Your task to perform on an android device: remove spam from my inbox in the gmail app Image 0: 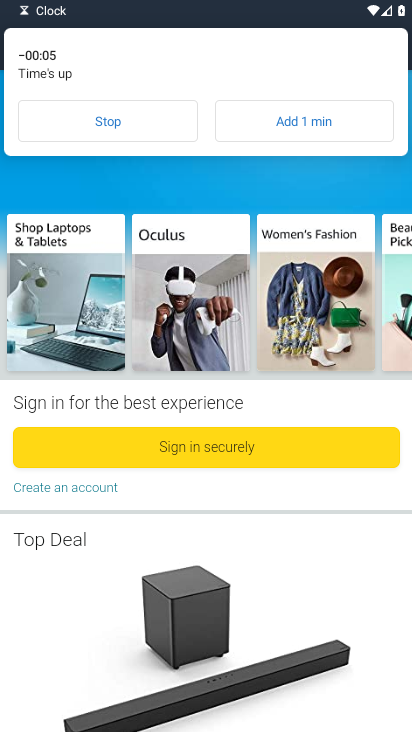
Step 0: press home button
Your task to perform on an android device: remove spam from my inbox in the gmail app Image 1: 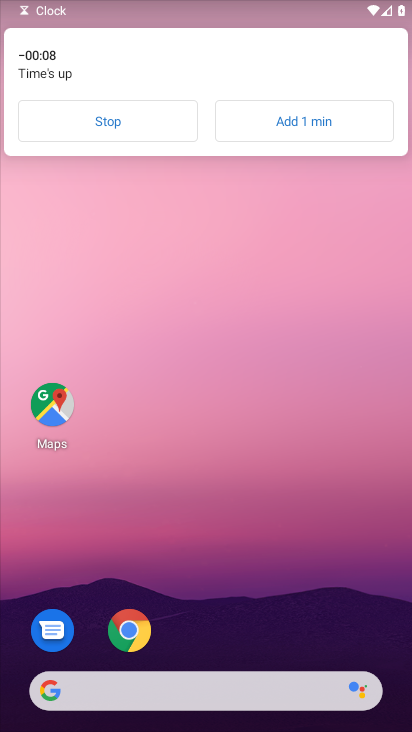
Step 1: click (85, 122)
Your task to perform on an android device: remove spam from my inbox in the gmail app Image 2: 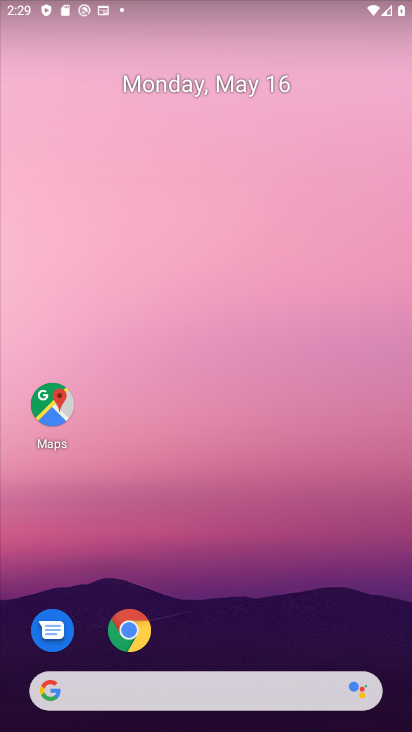
Step 2: drag from (214, 647) to (248, 290)
Your task to perform on an android device: remove spam from my inbox in the gmail app Image 3: 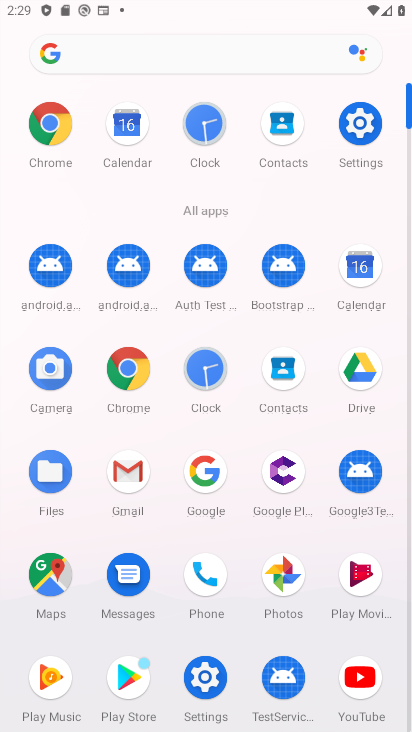
Step 3: click (131, 465)
Your task to perform on an android device: remove spam from my inbox in the gmail app Image 4: 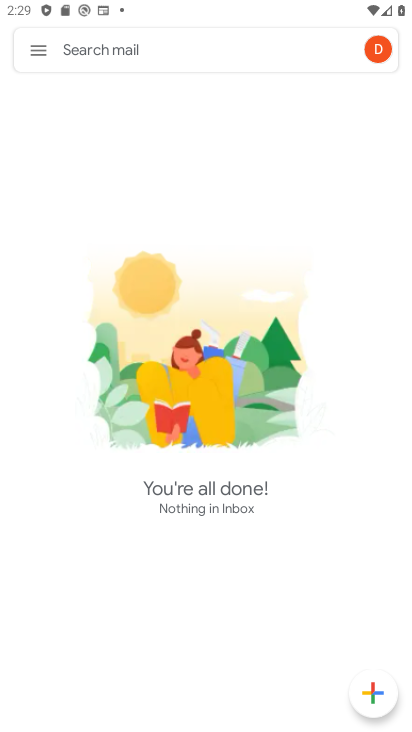
Step 4: click (33, 45)
Your task to perform on an android device: remove spam from my inbox in the gmail app Image 5: 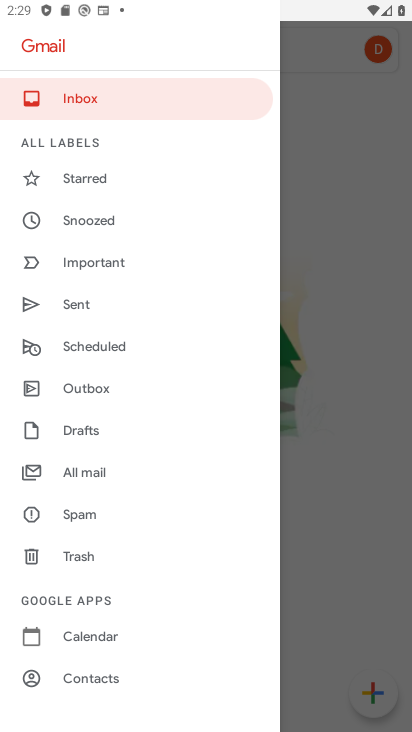
Step 5: click (99, 508)
Your task to perform on an android device: remove spam from my inbox in the gmail app Image 6: 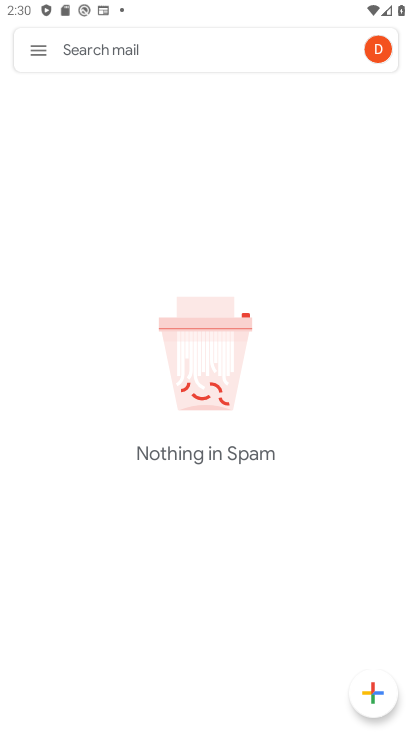
Step 6: task complete